Your task to perform on an android device: Set an alarm for 1pm Image 0: 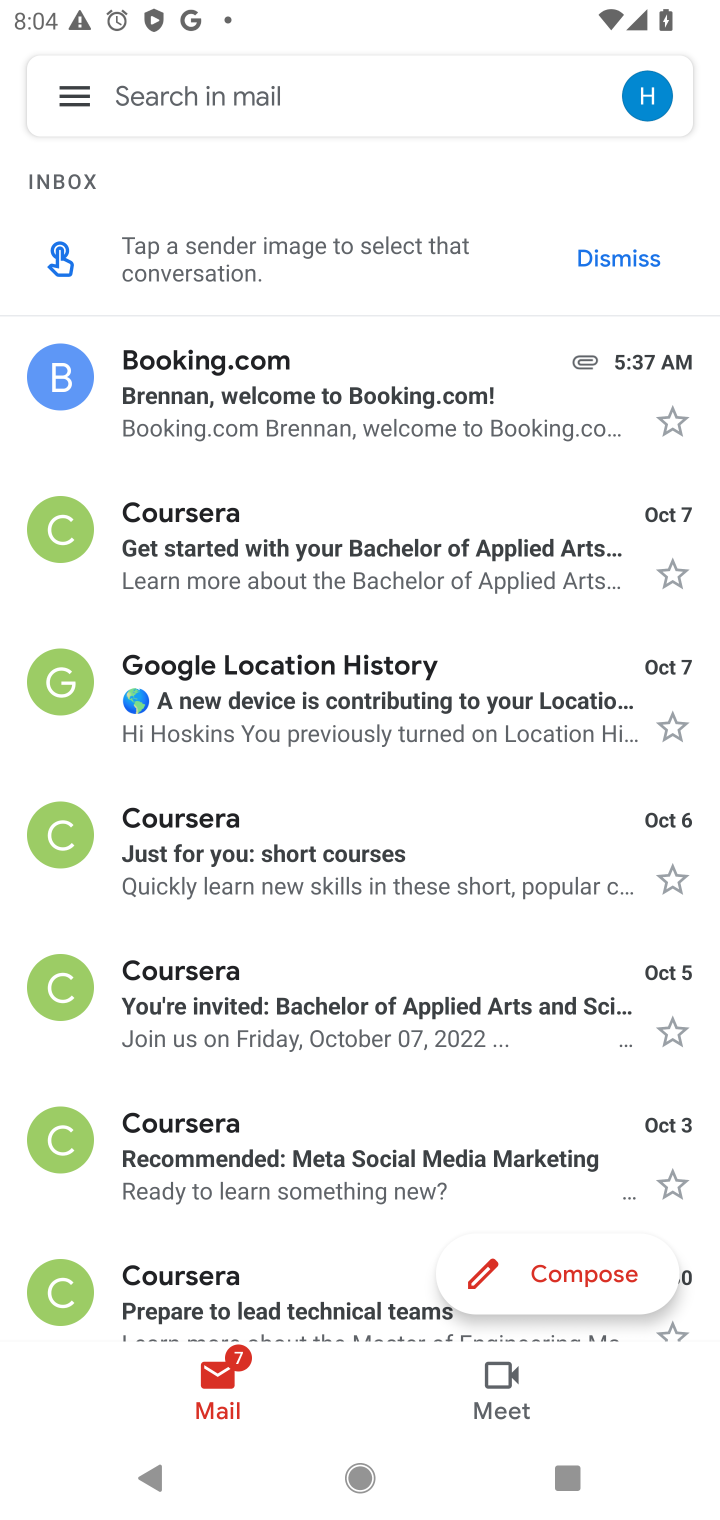
Step 0: press home button
Your task to perform on an android device: Set an alarm for 1pm Image 1: 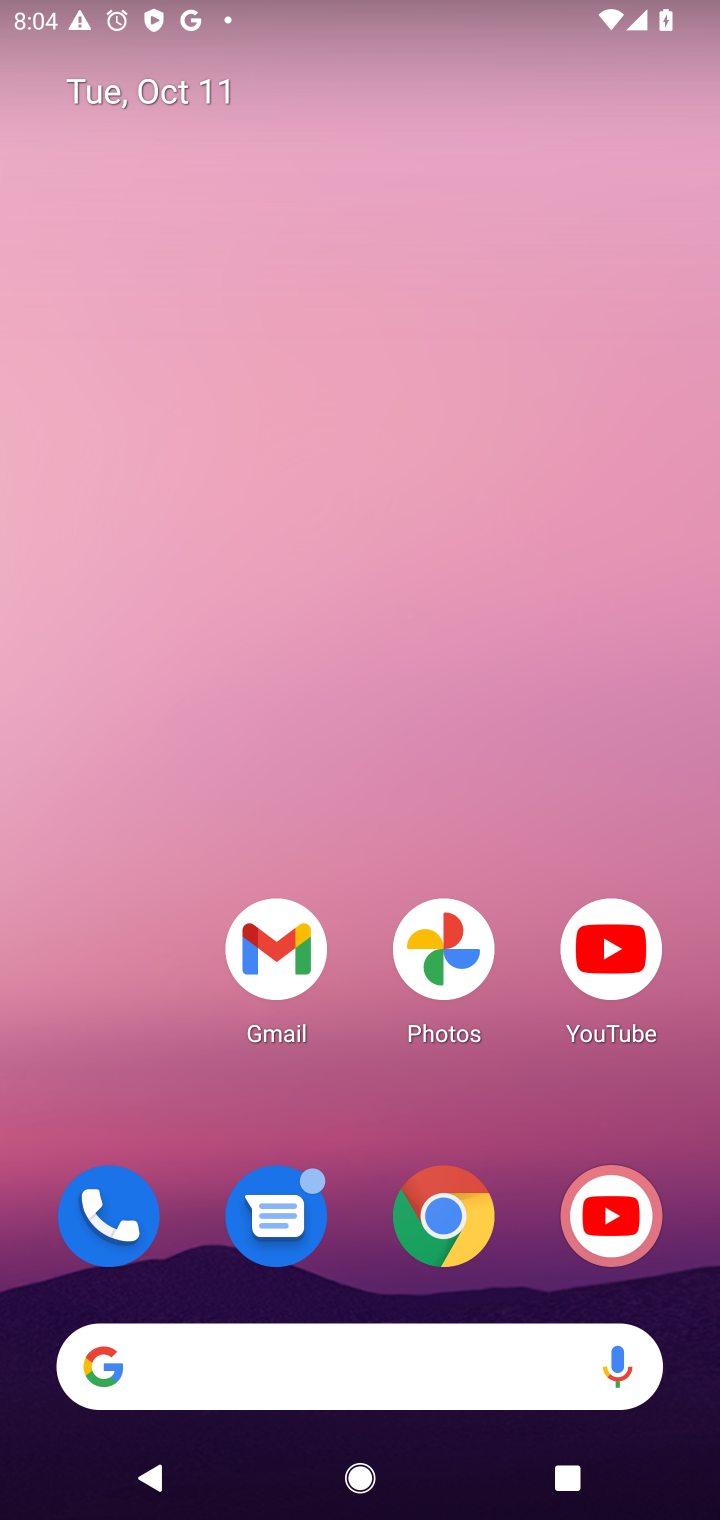
Step 1: drag from (375, 535) to (377, 456)
Your task to perform on an android device: Set an alarm for 1pm Image 2: 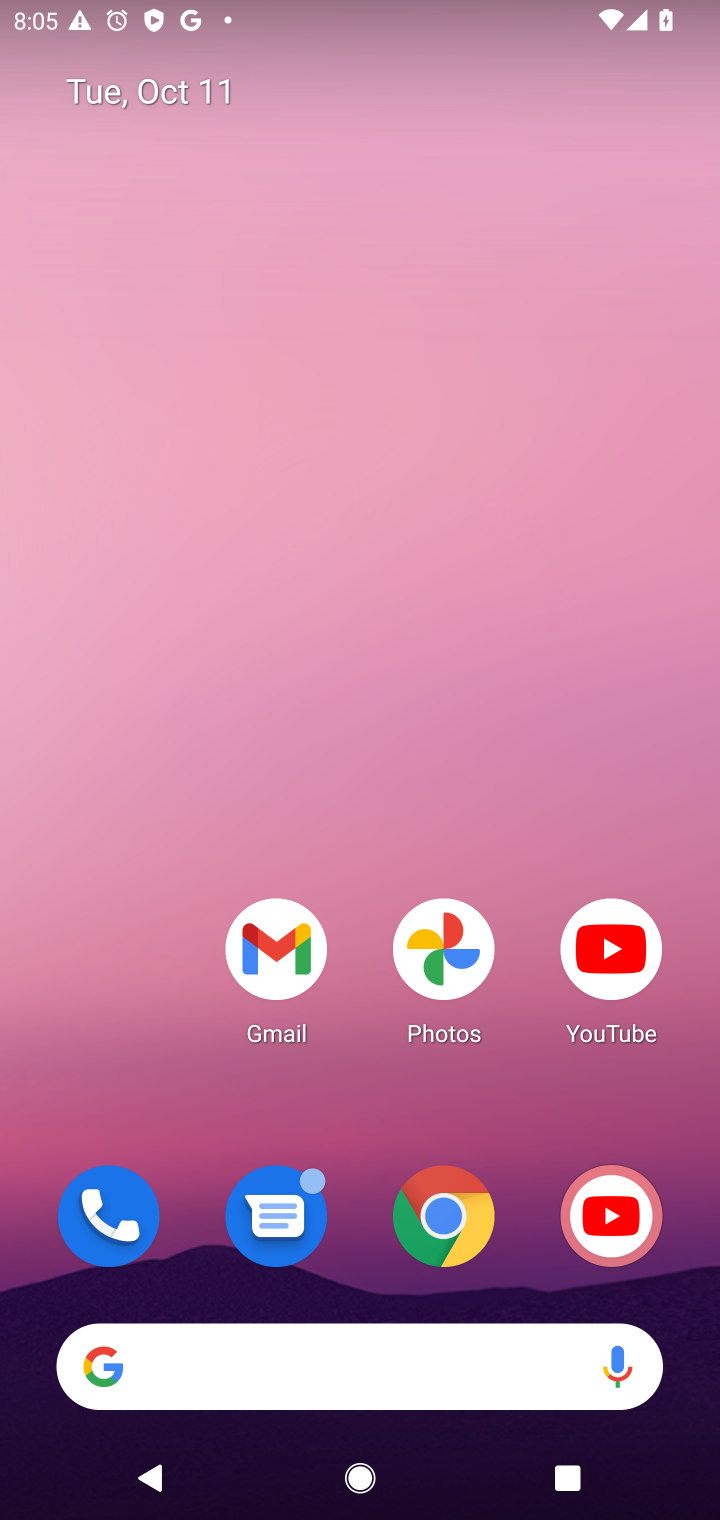
Step 2: drag from (370, 1361) to (362, 423)
Your task to perform on an android device: Set an alarm for 1pm Image 3: 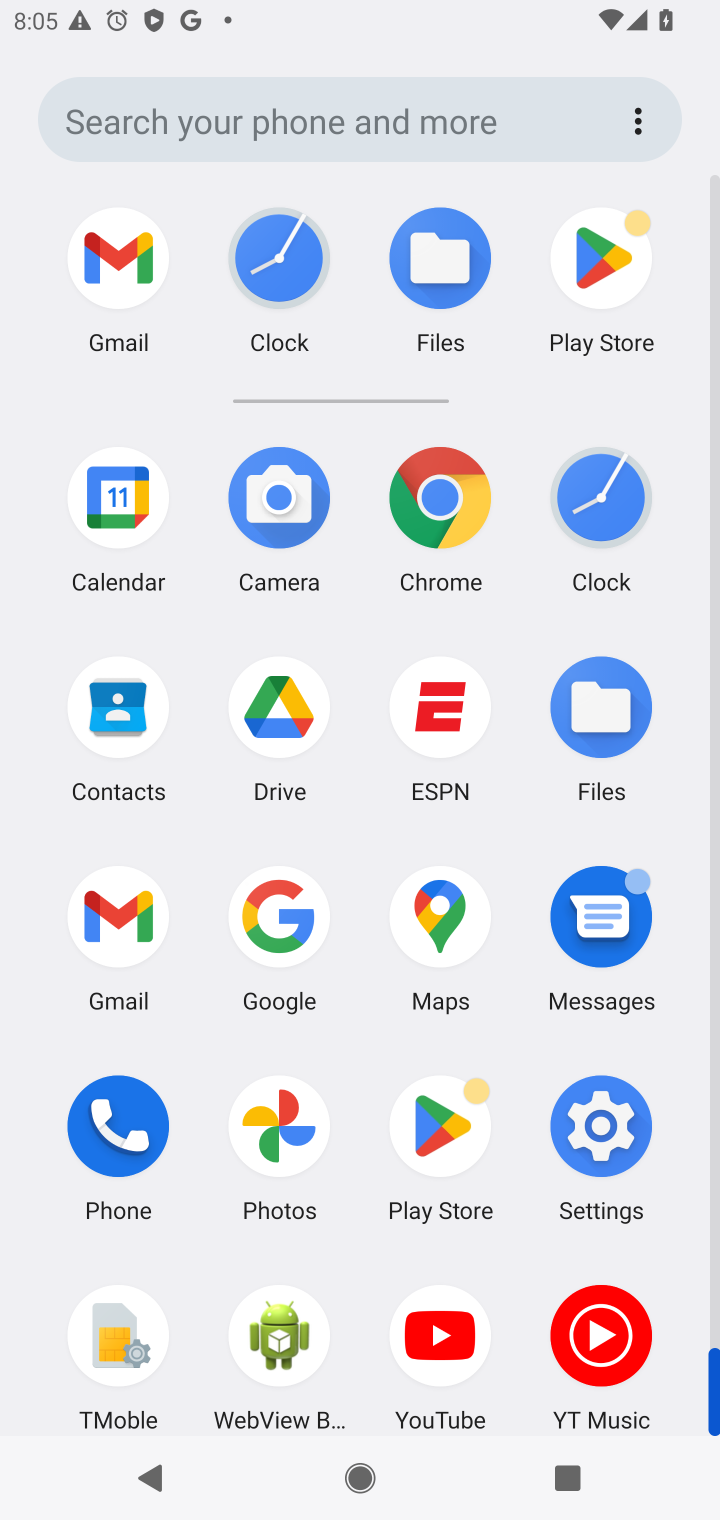
Step 3: click (561, 536)
Your task to perform on an android device: Set an alarm for 1pm Image 4: 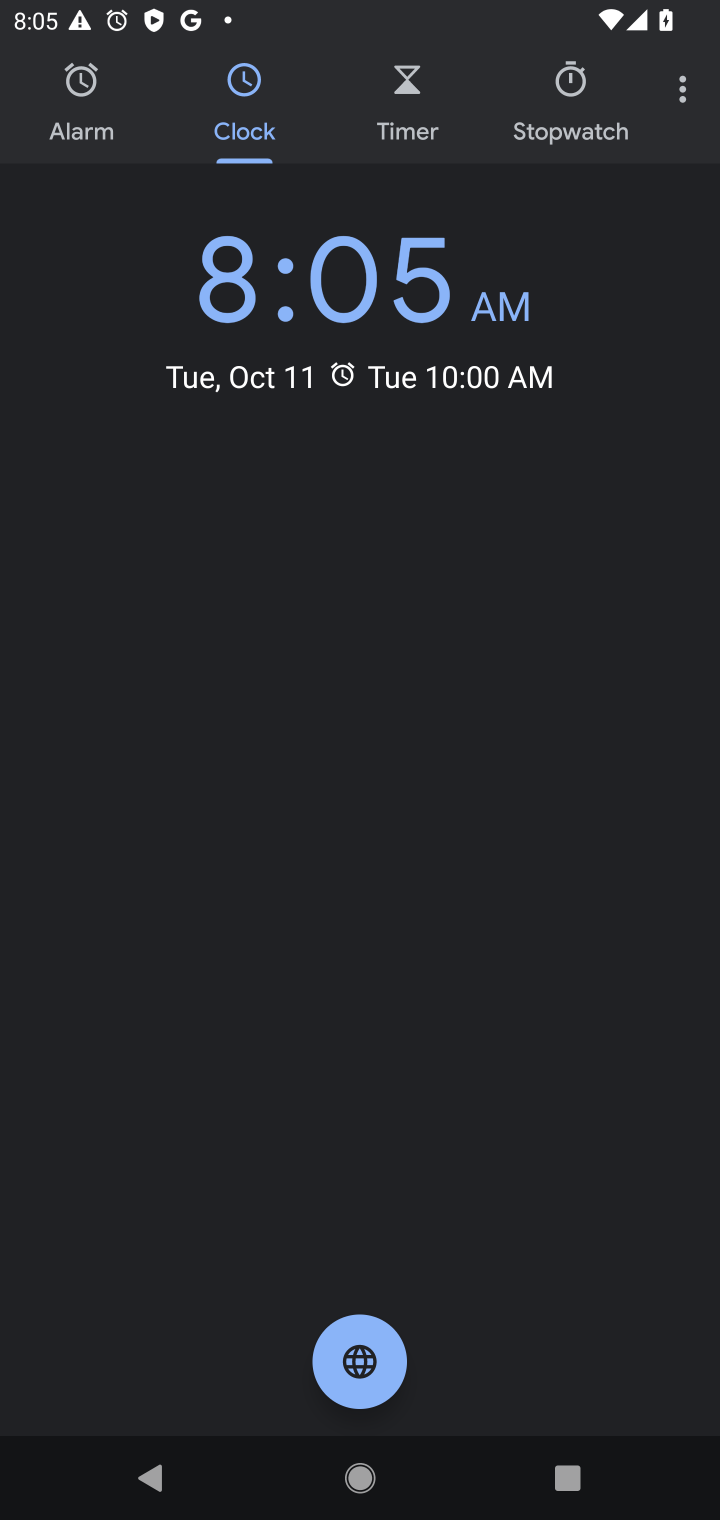
Step 4: click (111, 98)
Your task to perform on an android device: Set an alarm for 1pm Image 5: 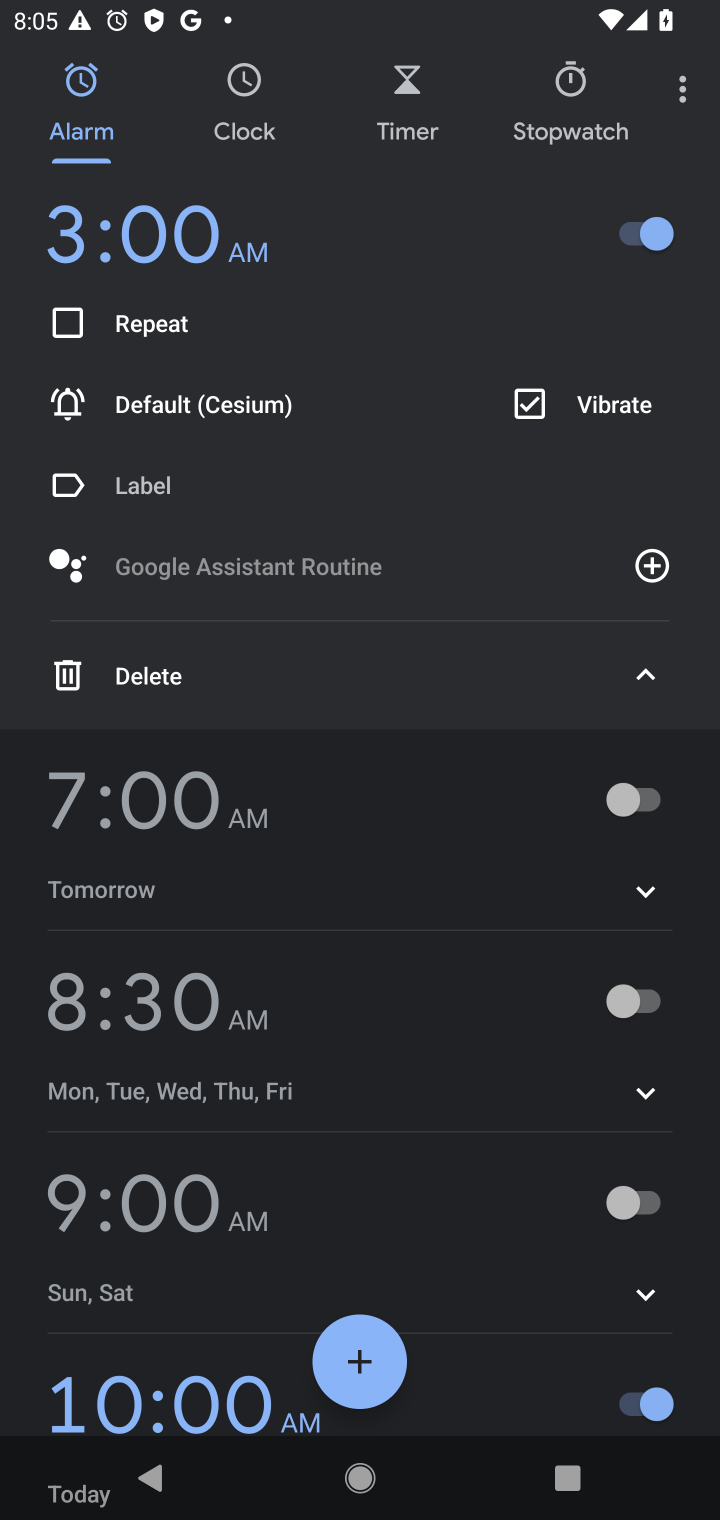
Step 5: click (391, 1346)
Your task to perform on an android device: Set an alarm for 1pm Image 6: 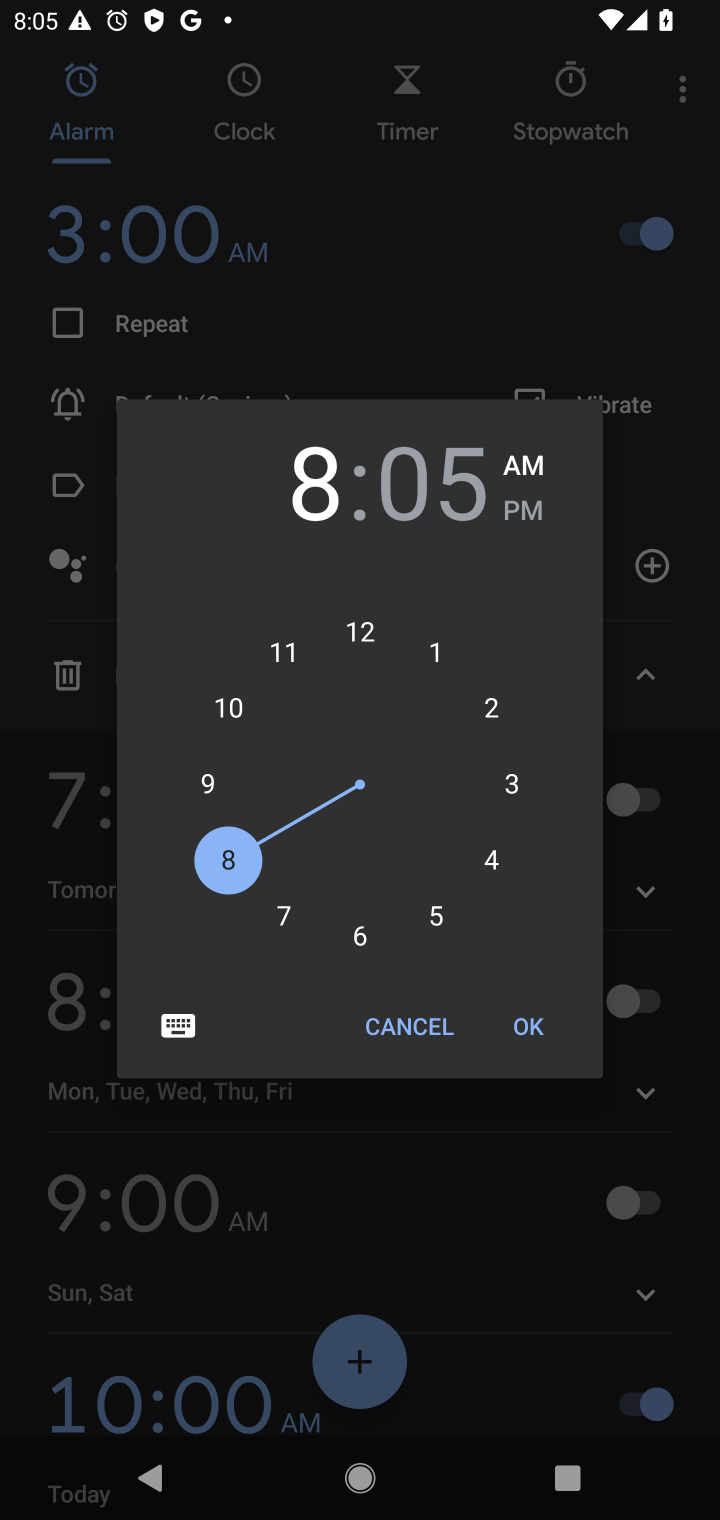
Step 6: click (445, 656)
Your task to perform on an android device: Set an alarm for 1pm Image 7: 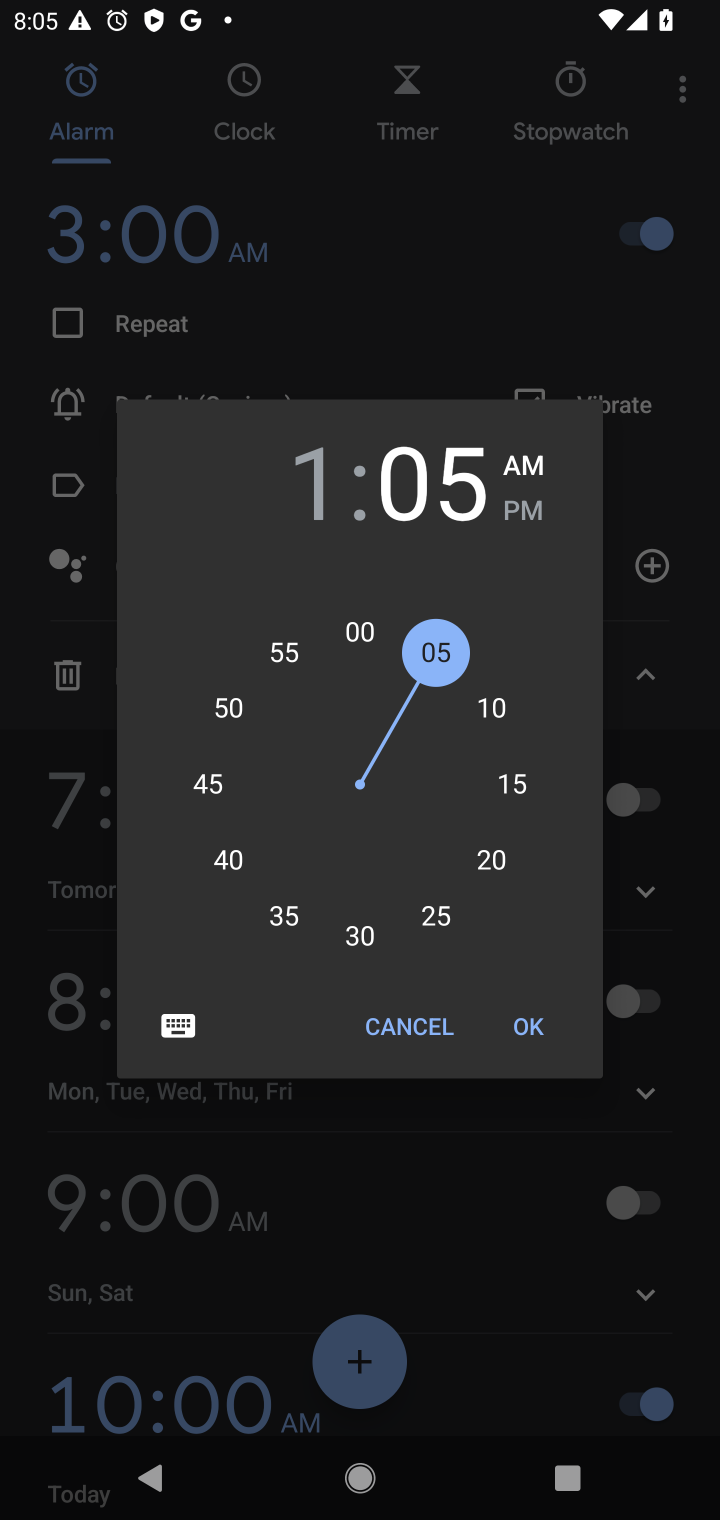
Step 7: click (356, 625)
Your task to perform on an android device: Set an alarm for 1pm Image 8: 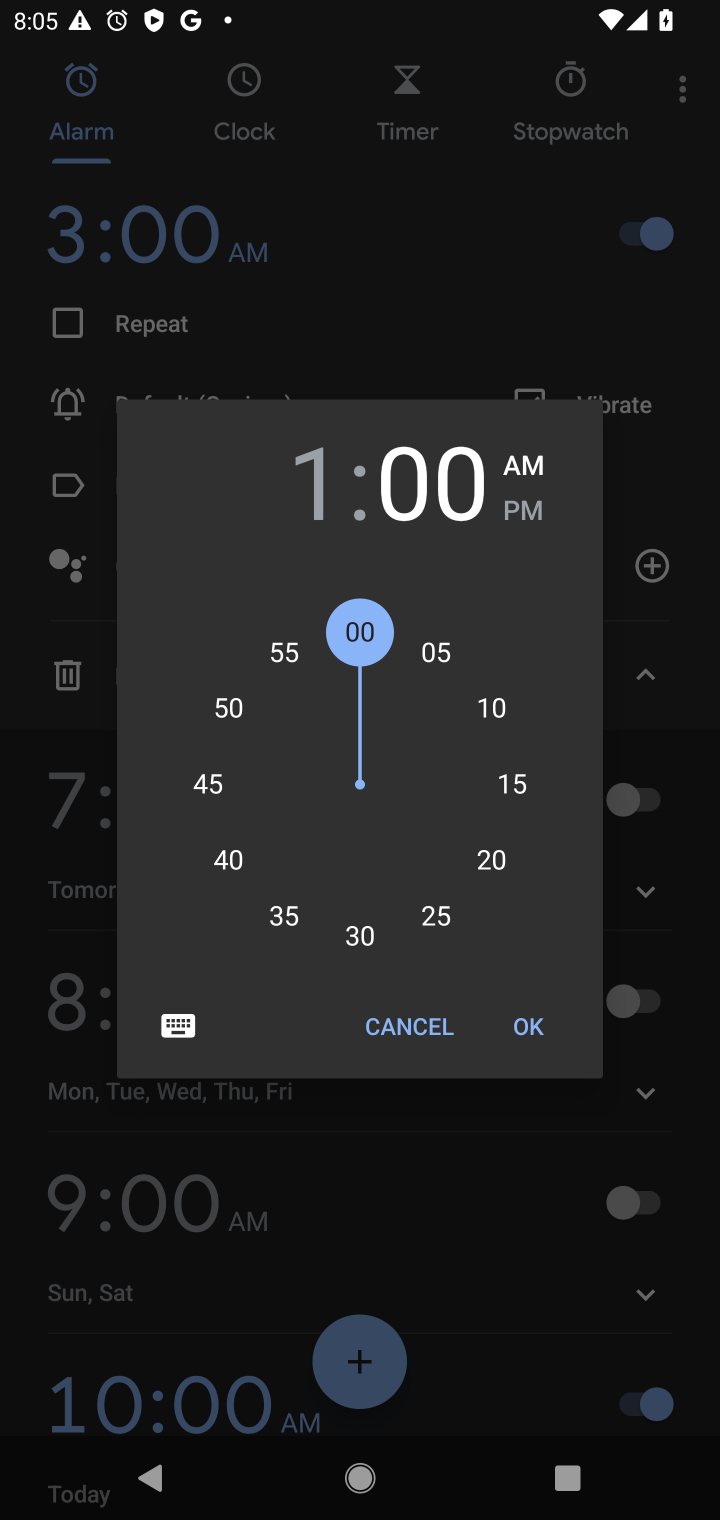
Step 8: click (516, 511)
Your task to perform on an android device: Set an alarm for 1pm Image 9: 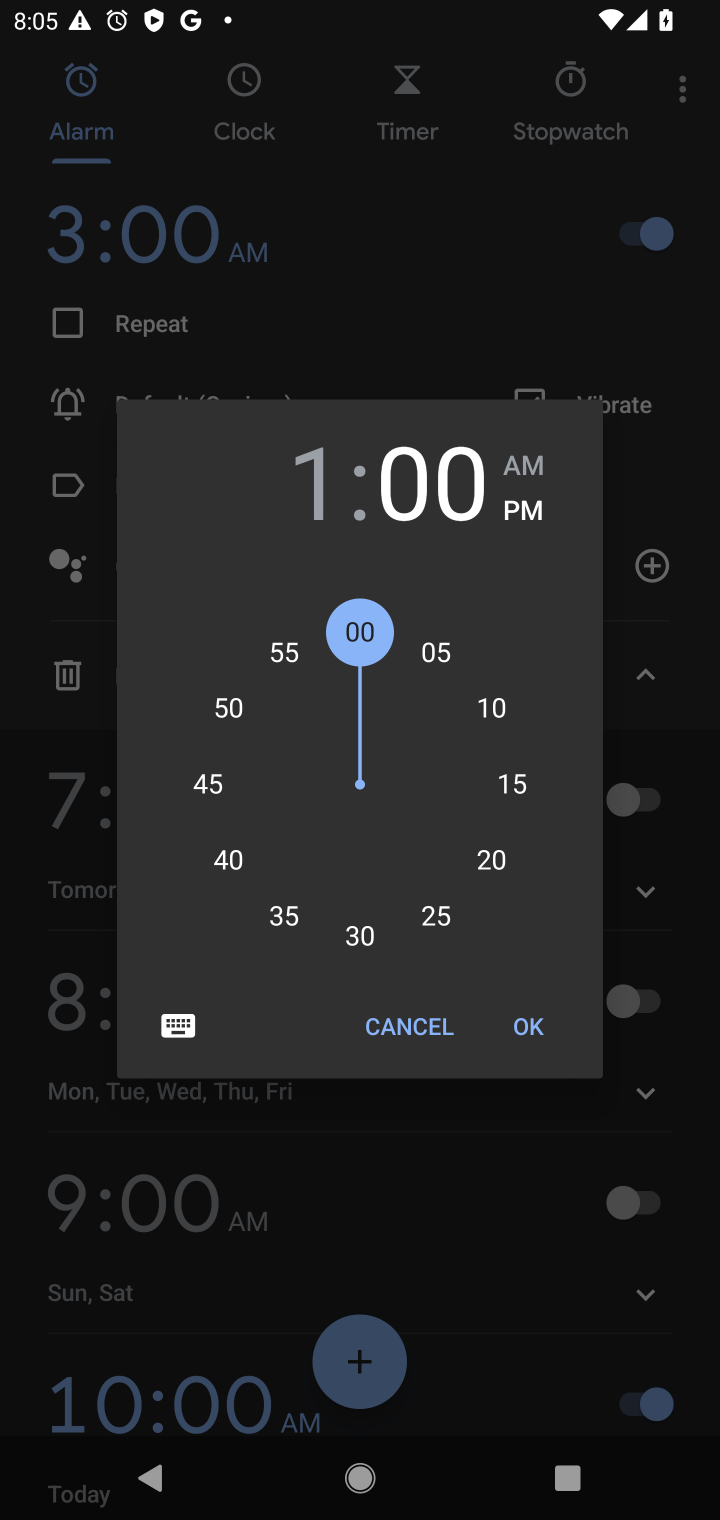
Step 9: click (530, 1016)
Your task to perform on an android device: Set an alarm for 1pm Image 10: 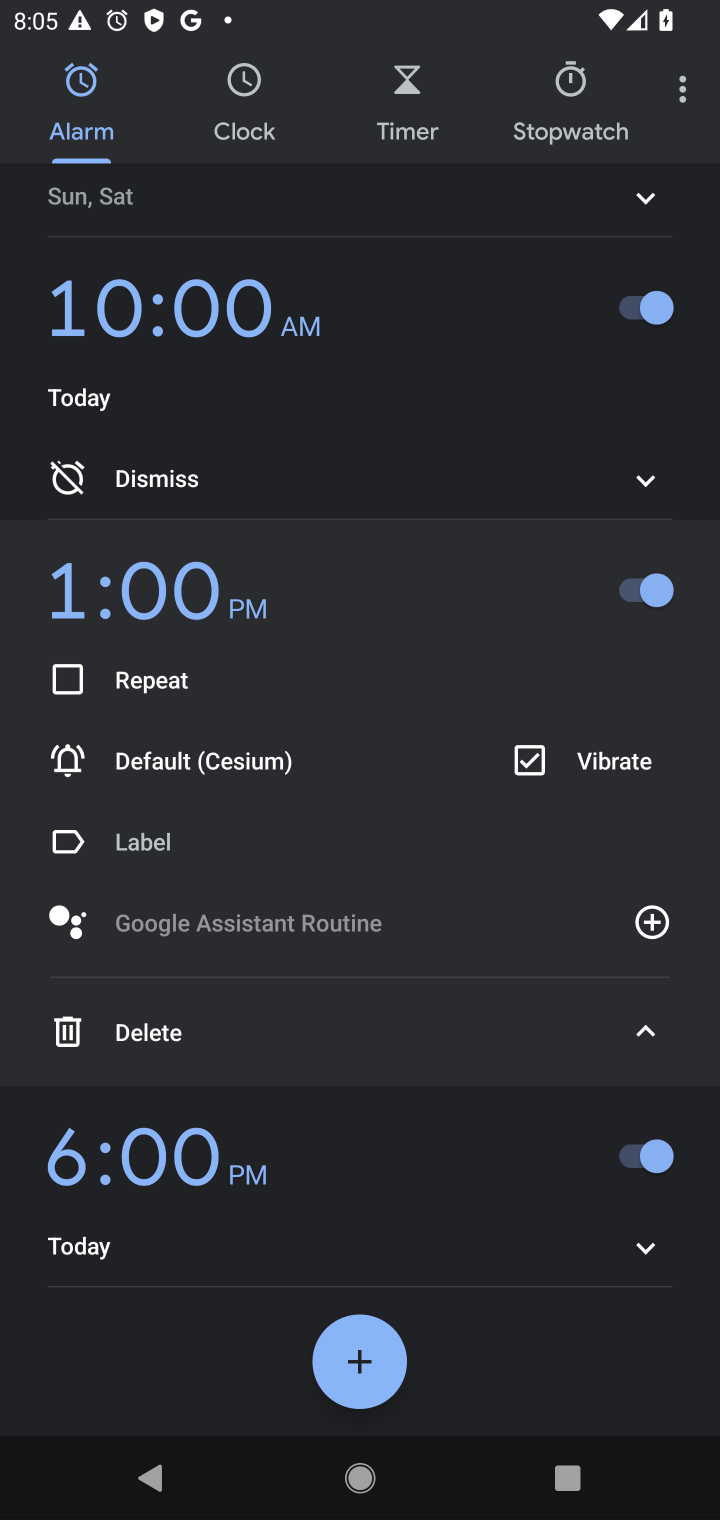
Step 10: task complete